Your task to perform on an android device: Go to Yahoo.com Image 0: 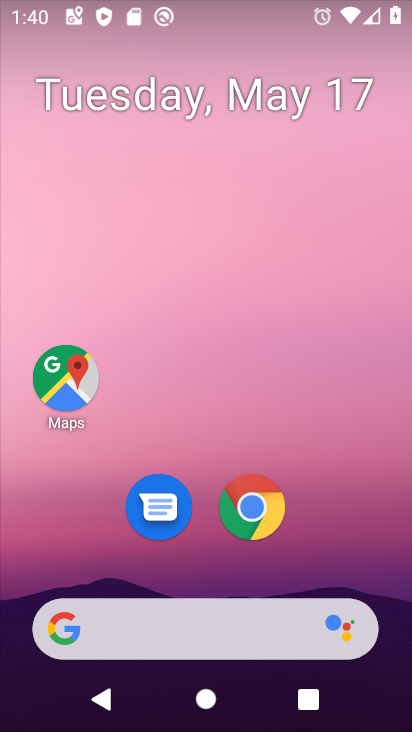
Step 0: click (237, 506)
Your task to perform on an android device: Go to Yahoo.com Image 1: 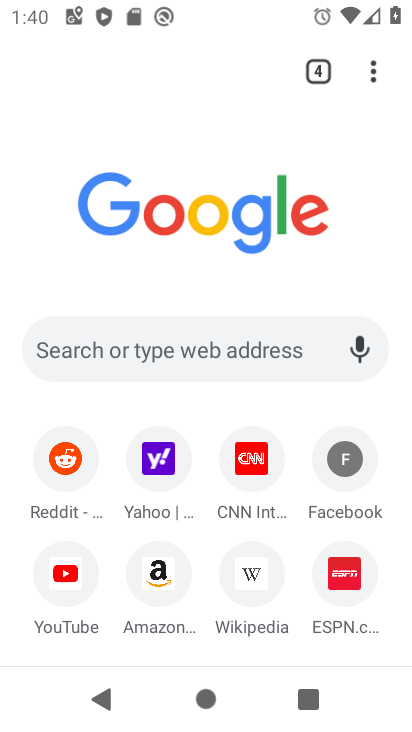
Step 1: click (150, 473)
Your task to perform on an android device: Go to Yahoo.com Image 2: 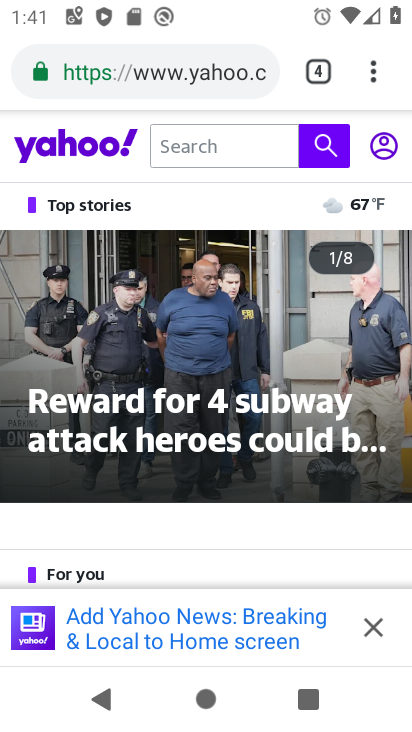
Step 2: task complete